Your task to perform on an android device: Show me the alarms in the clock app Image 0: 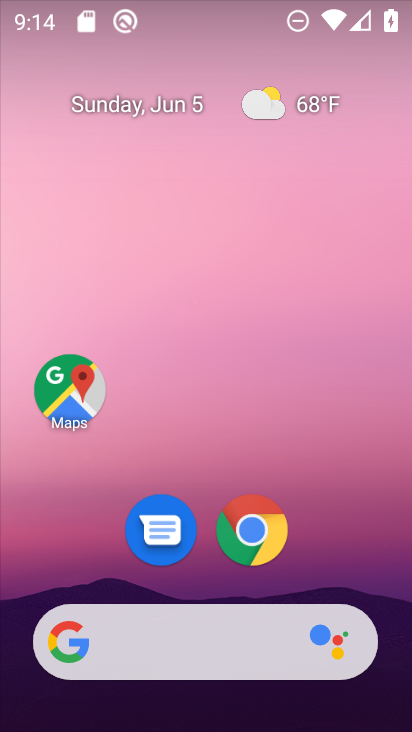
Step 0: drag from (393, 612) to (362, 99)
Your task to perform on an android device: Show me the alarms in the clock app Image 1: 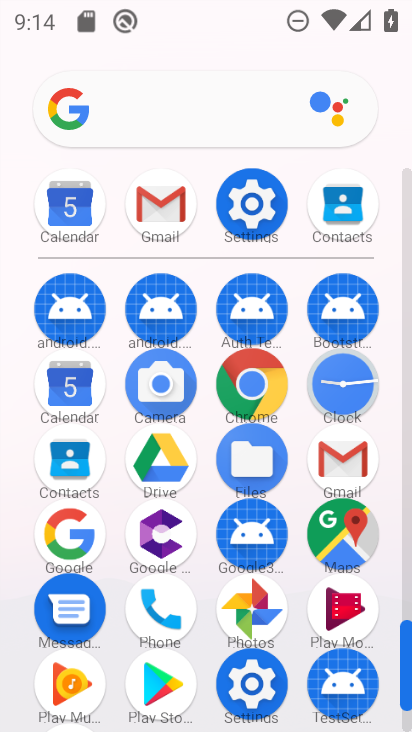
Step 1: click (340, 383)
Your task to perform on an android device: Show me the alarms in the clock app Image 2: 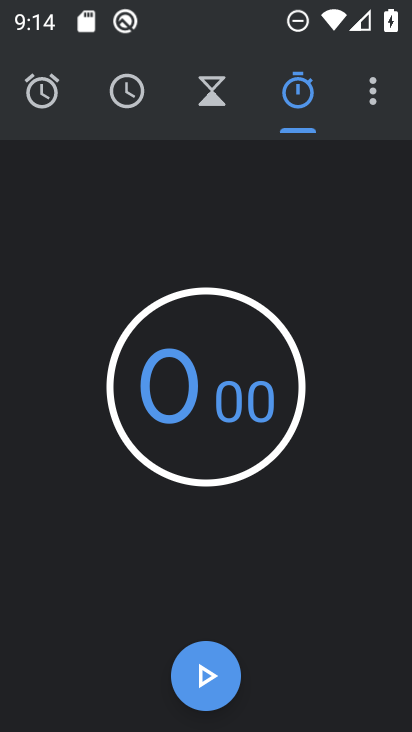
Step 2: click (31, 90)
Your task to perform on an android device: Show me the alarms in the clock app Image 3: 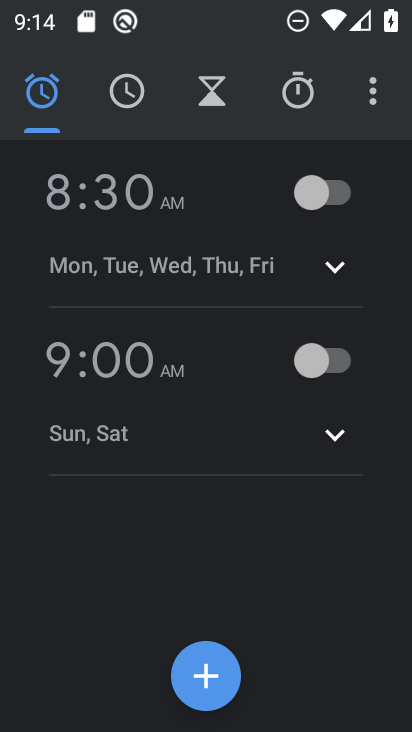
Step 3: task complete